Your task to perform on an android device: turn on showing notifications on the lock screen Image 0: 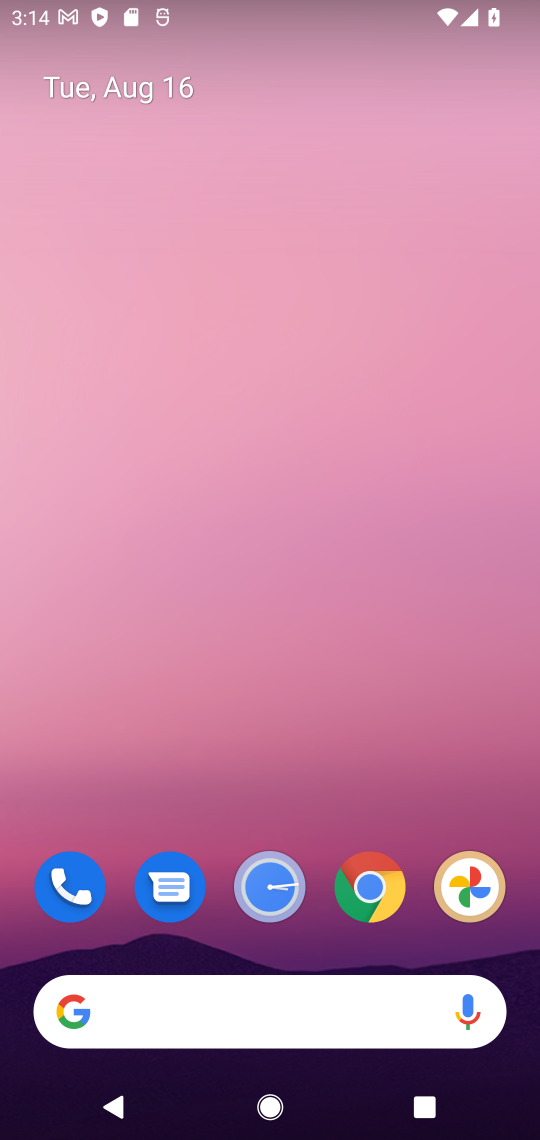
Step 0: drag from (341, 531) to (320, 14)
Your task to perform on an android device: turn on showing notifications on the lock screen Image 1: 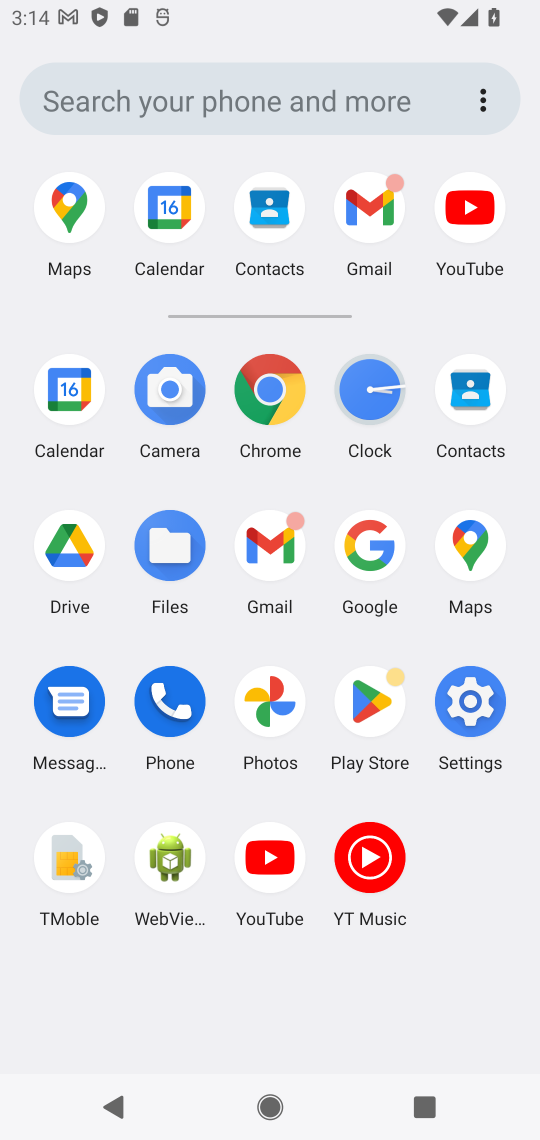
Step 1: click (477, 698)
Your task to perform on an android device: turn on showing notifications on the lock screen Image 2: 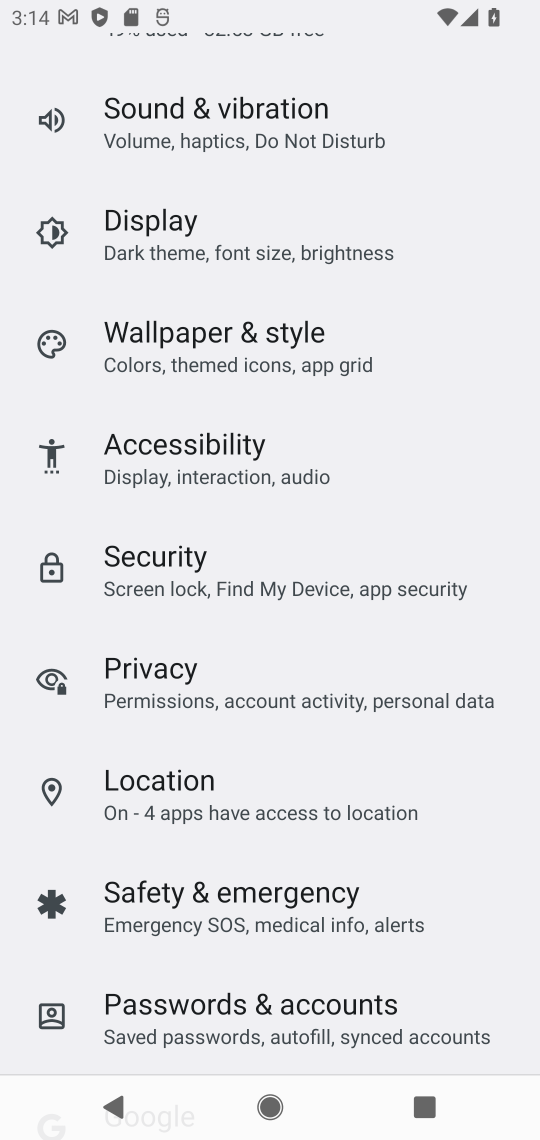
Step 2: drag from (353, 186) to (327, 681)
Your task to perform on an android device: turn on showing notifications on the lock screen Image 3: 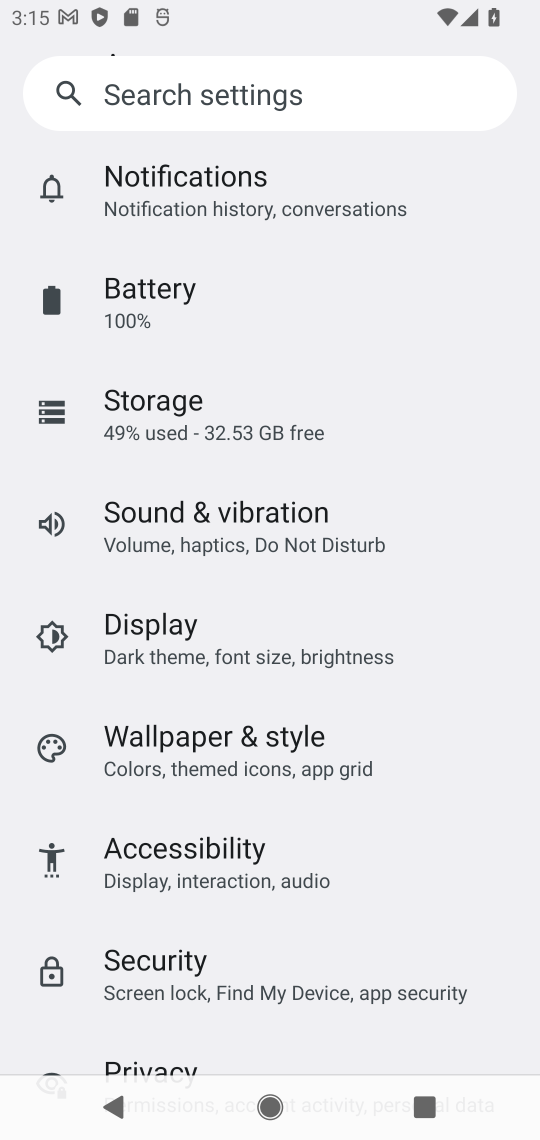
Step 3: click (241, 184)
Your task to perform on an android device: turn on showing notifications on the lock screen Image 4: 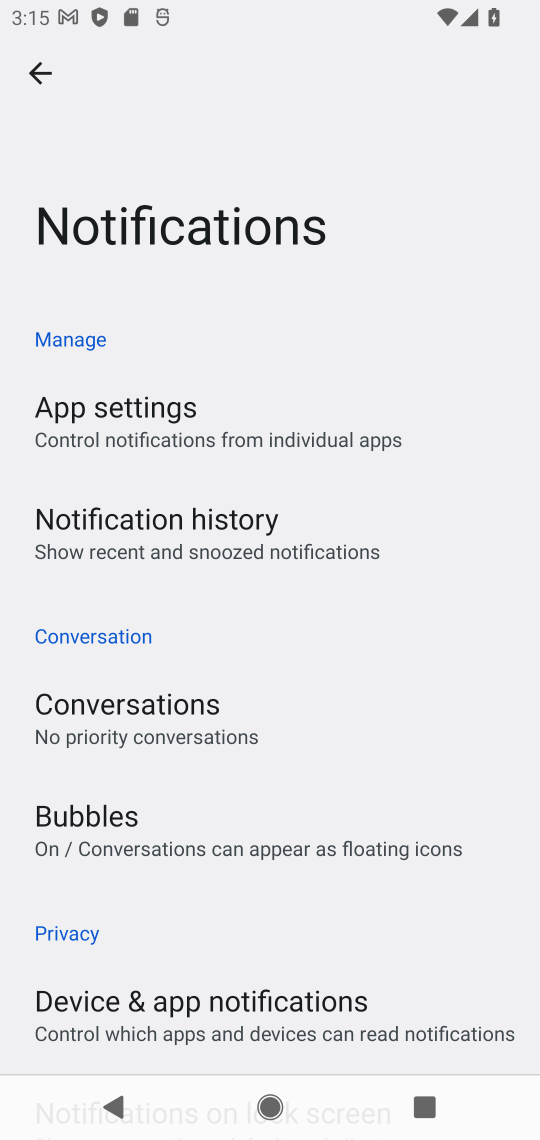
Step 4: drag from (329, 939) to (392, 137)
Your task to perform on an android device: turn on showing notifications on the lock screen Image 5: 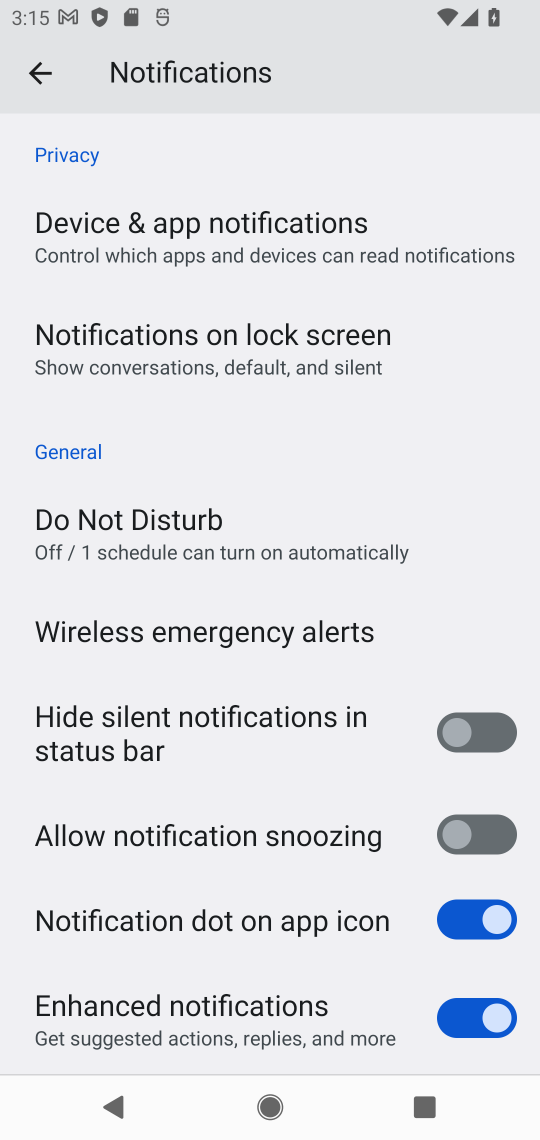
Step 5: drag from (398, 490) to (401, 52)
Your task to perform on an android device: turn on showing notifications on the lock screen Image 6: 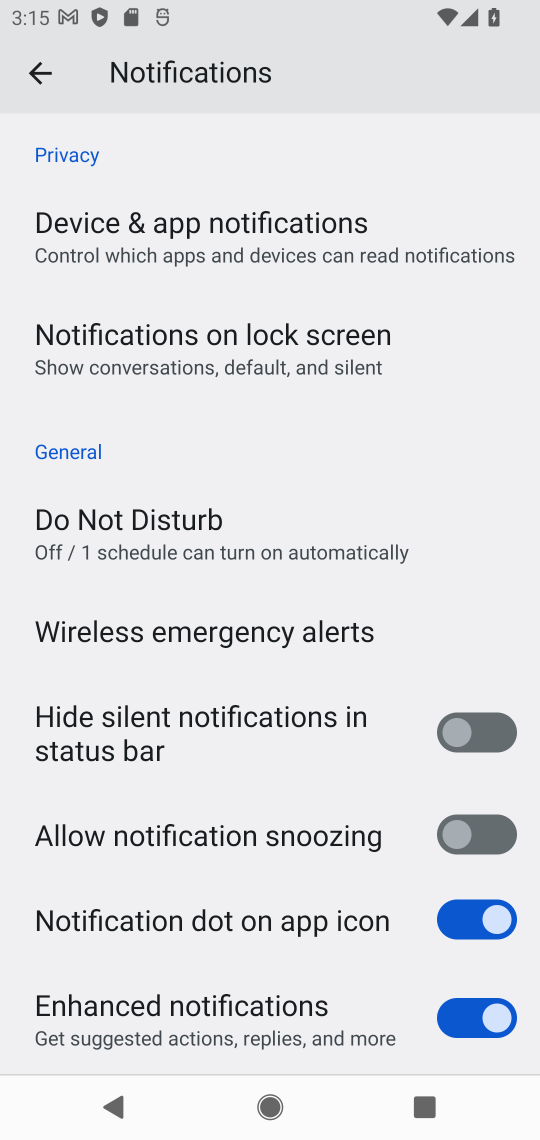
Step 6: drag from (401, 326) to (404, 752)
Your task to perform on an android device: turn on showing notifications on the lock screen Image 7: 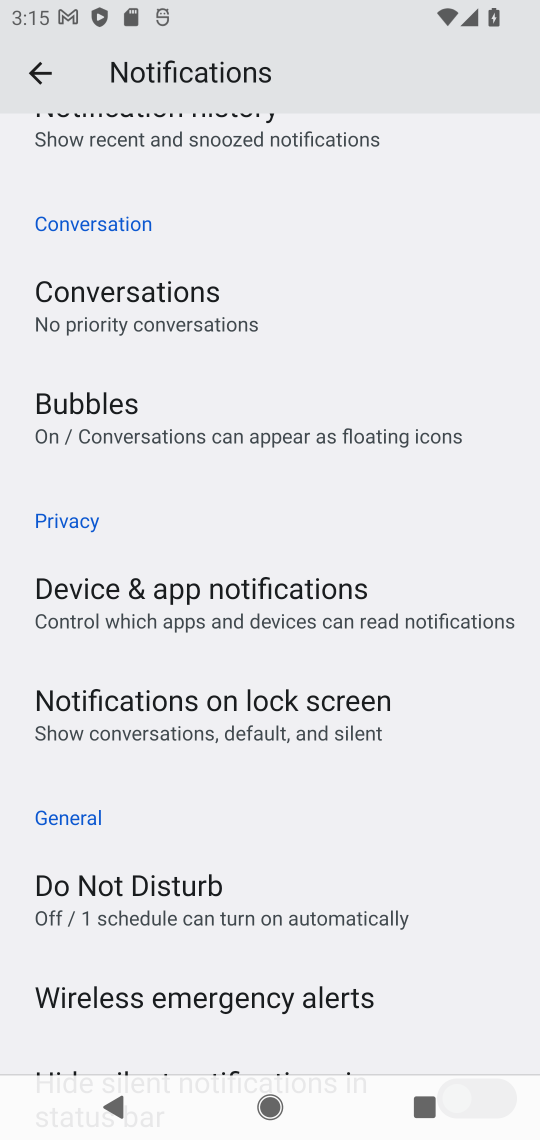
Step 7: click (340, 721)
Your task to perform on an android device: turn on showing notifications on the lock screen Image 8: 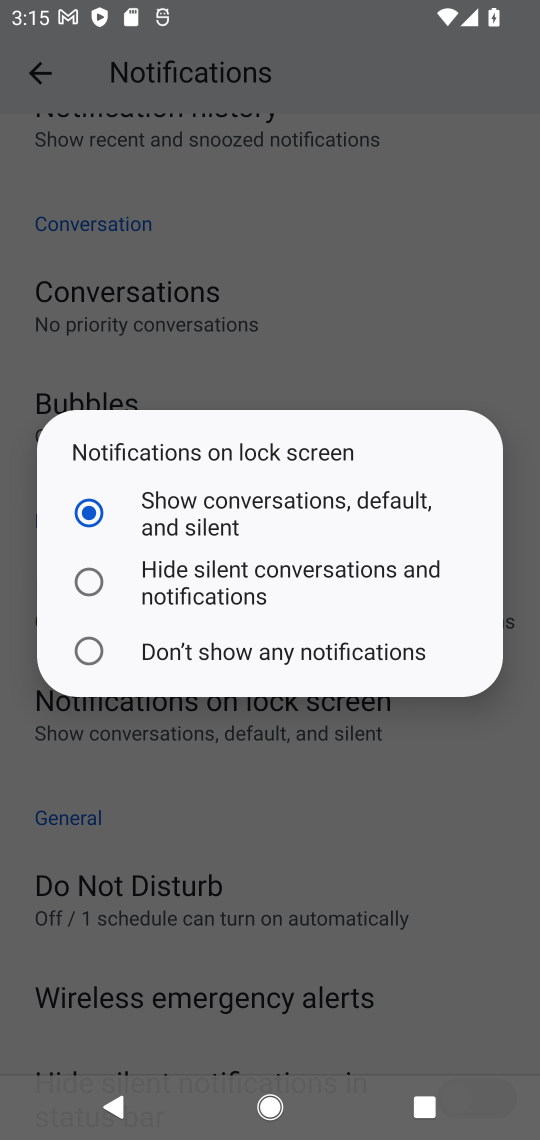
Step 8: task complete